Your task to perform on an android device: What's the weather going to be this weekend? Image 0: 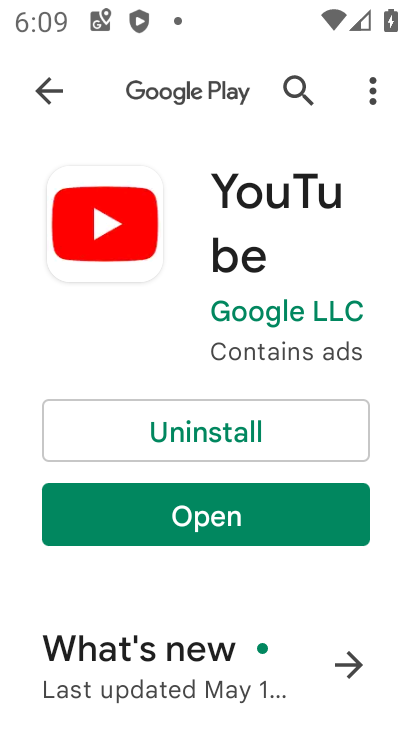
Step 0: press home button
Your task to perform on an android device: What's the weather going to be this weekend? Image 1: 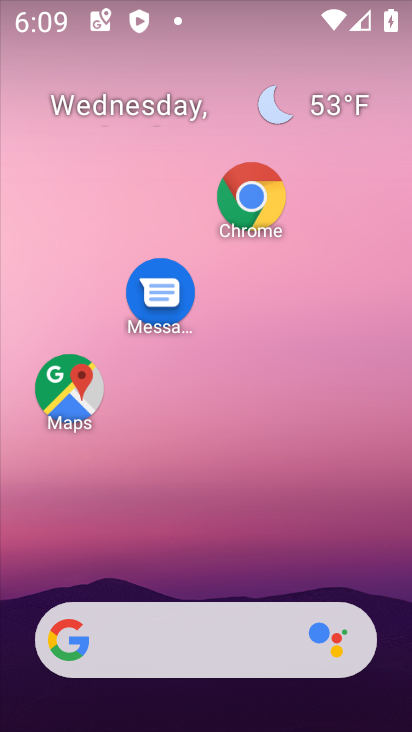
Step 1: drag from (223, 550) to (210, 4)
Your task to perform on an android device: What's the weather going to be this weekend? Image 2: 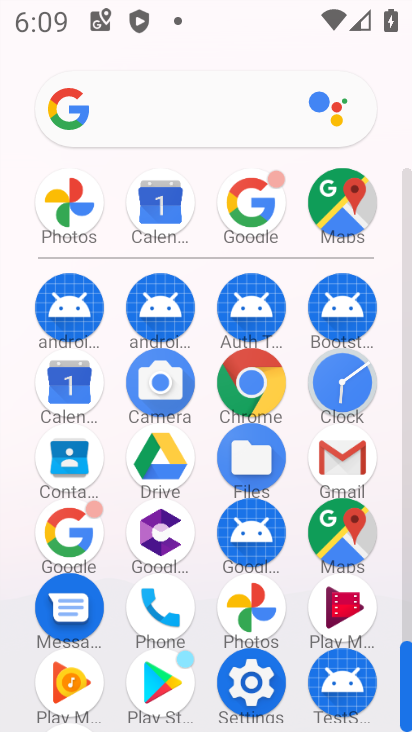
Step 2: click (72, 526)
Your task to perform on an android device: What's the weather going to be this weekend? Image 3: 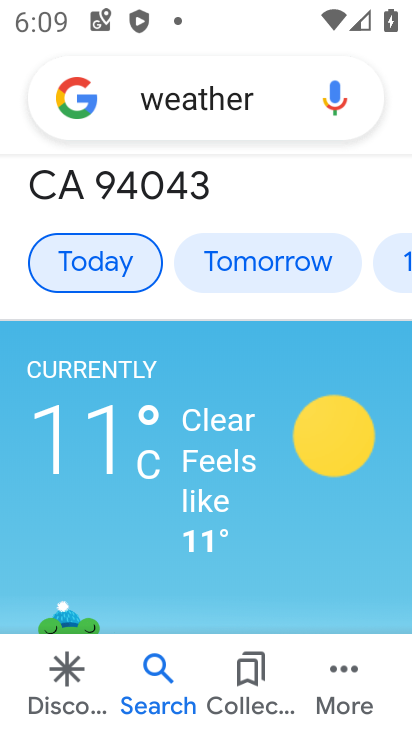
Step 3: drag from (251, 612) to (240, 323)
Your task to perform on an android device: What's the weather going to be this weekend? Image 4: 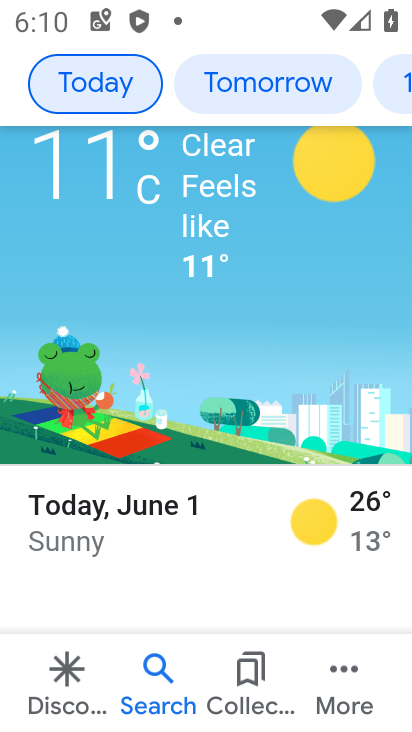
Step 4: drag from (359, 97) to (90, 30)
Your task to perform on an android device: What's the weather going to be this weekend? Image 5: 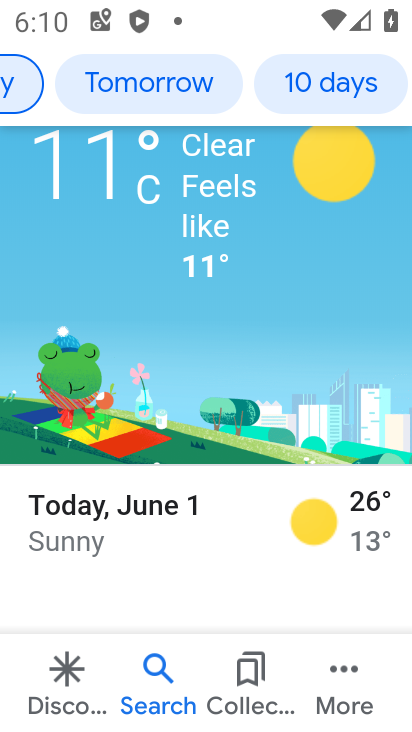
Step 5: click (329, 90)
Your task to perform on an android device: What's the weather going to be this weekend? Image 6: 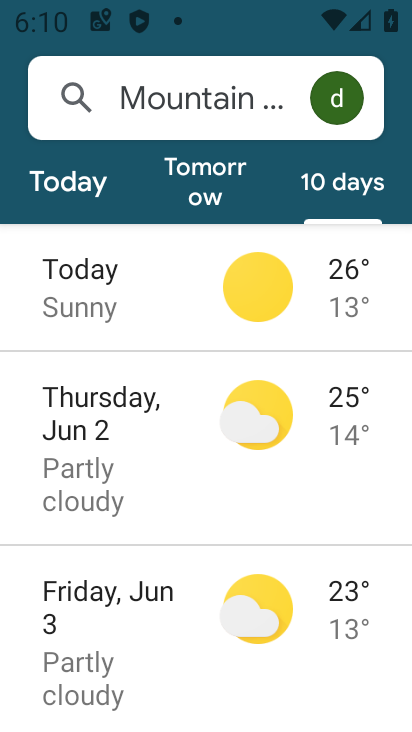
Step 6: task complete